Your task to perform on an android device: turn off sleep mode Image 0: 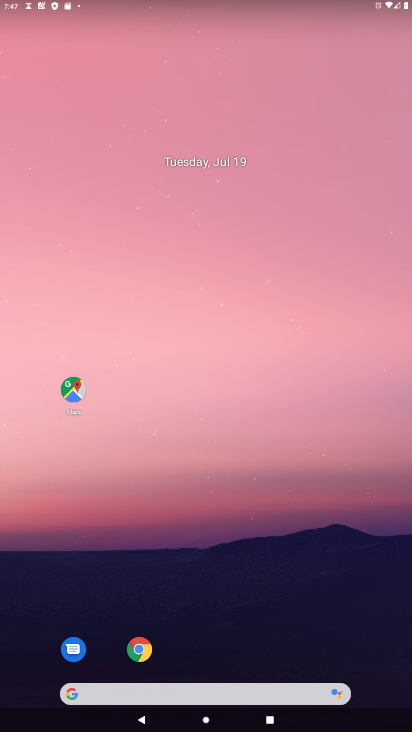
Step 0: drag from (176, 696) to (214, 183)
Your task to perform on an android device: turn off sleep mode Image 1: 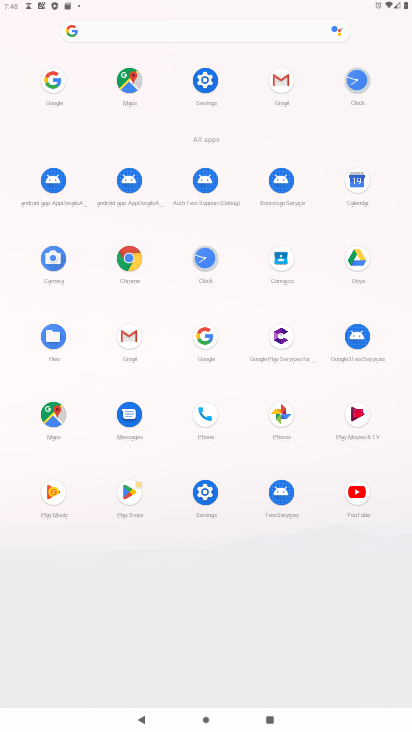
Step 1: click (203, 491)
Your task to perform on an android device: turn off sleep mode Image 2: 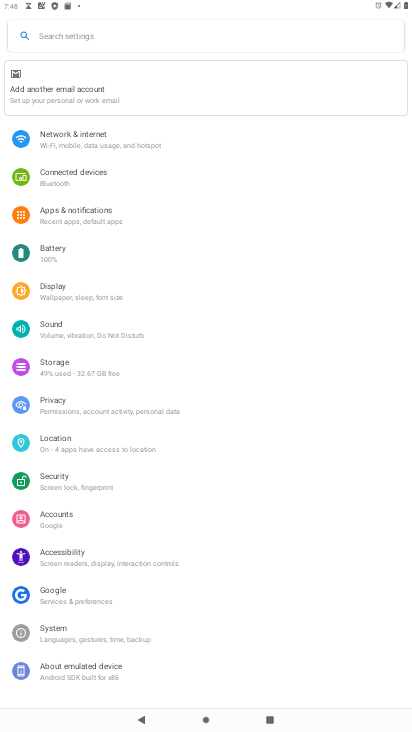
Step 2: click (67, 288)
Your task to perform on an android device: turn off sleep mode Image 3: 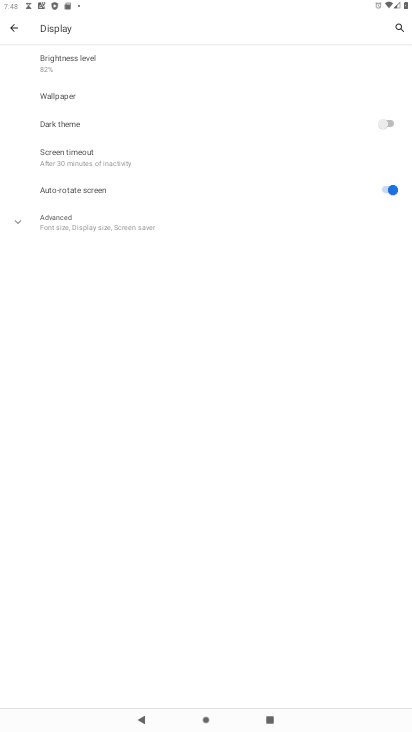
Step 3: click (84, 164)
Your task to perform on an android device: turn off sleep mode Image 4: 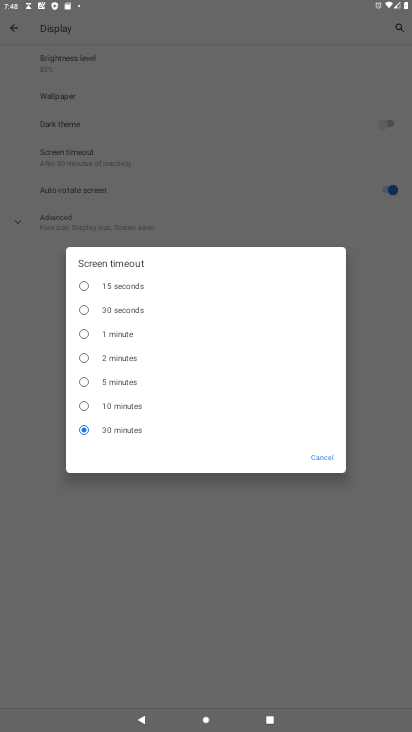
Step 4: click (327, 453)
Your task to perform on an android device: turn off sleep mode Image 5: 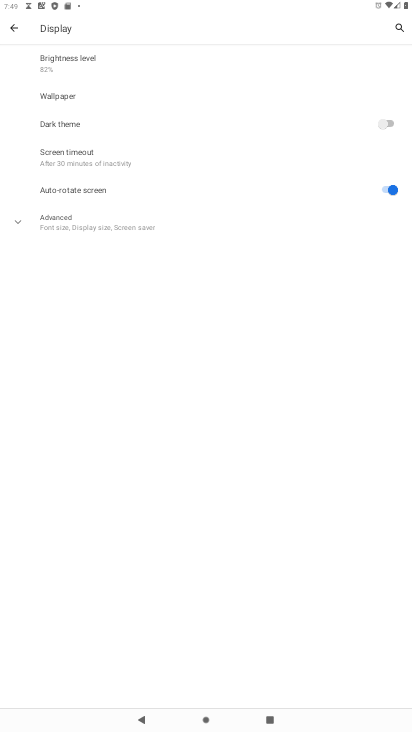
Step 5: click (82, 222)
Your task to perform on an android device: turn off sleep mode Image 6: 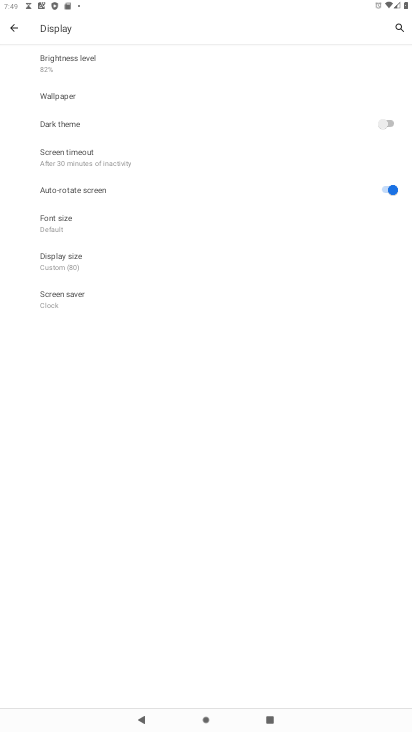
Step 6: click (60, 302)
Your task to perform on an android device: turn off sleep mode Image 7: 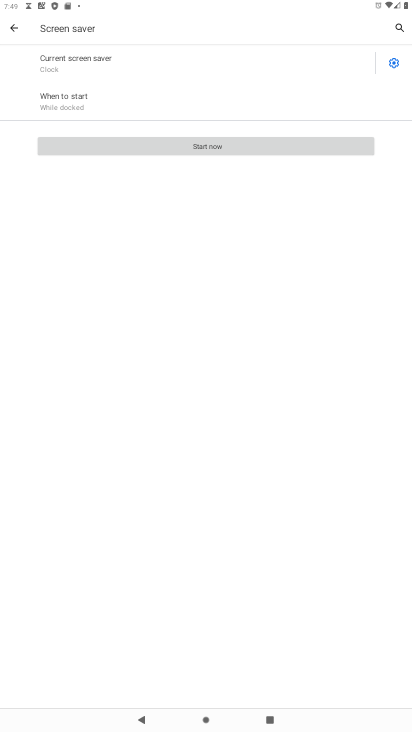
Step 7: task complete